Your task to perform on an android device: Check the weather Image 0: 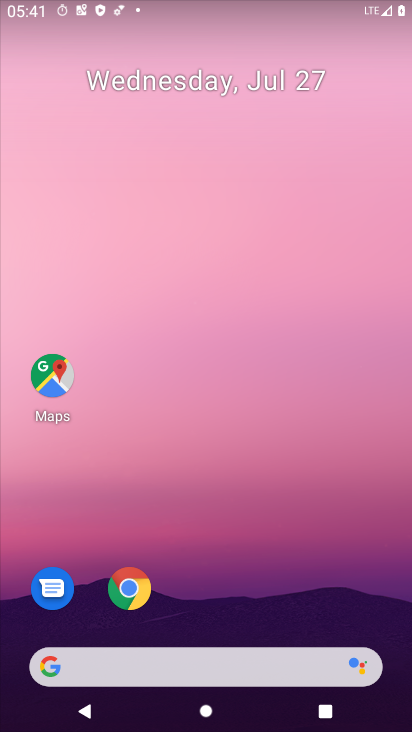
Step 0: drag from (284, 657) to (306, 4)
Your task to perform on an android device: Check the weather Image 1: 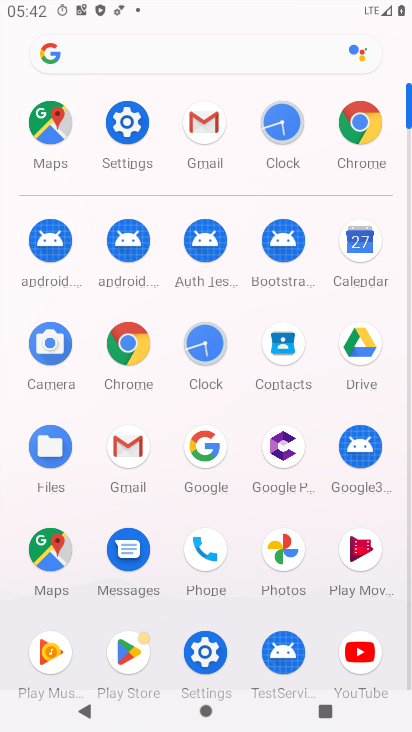
Step 1: click (140, 335)
Your task to perform on an android device: Check the weather Image 2: 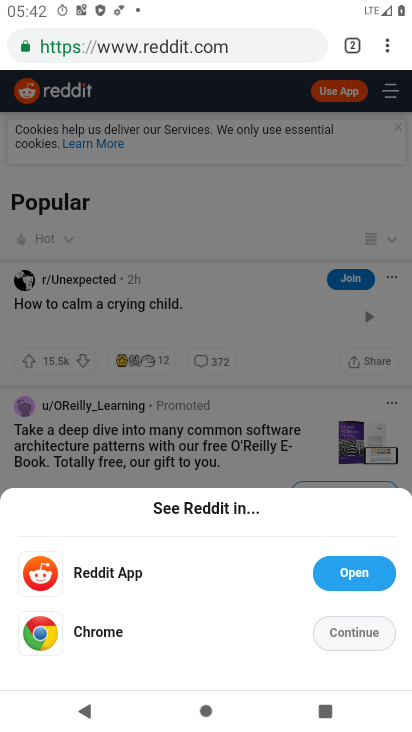
Step 2: click (251, 53)
Your task to perform on an android device: Check the weather Image 3: 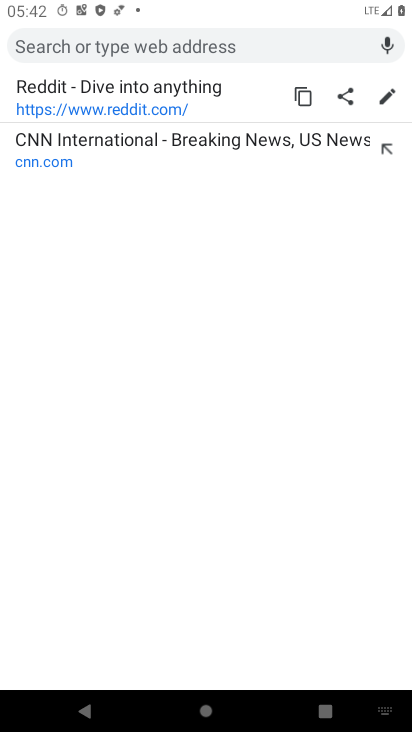
Step 3: type "check the weather"
Your task to perform on an android device: Check the weather Image 4: 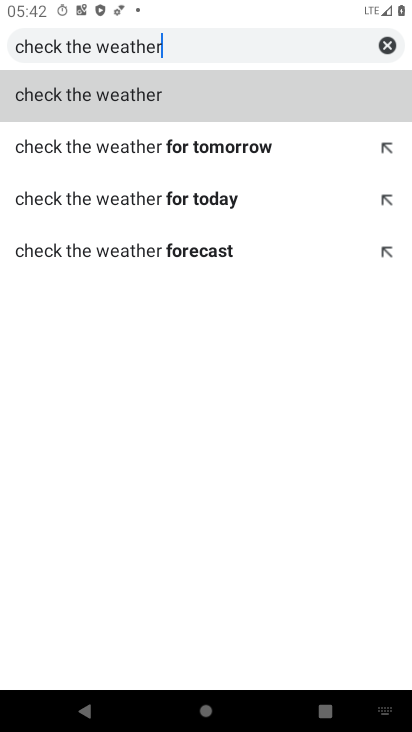
Step 4: click (170, 99)
Your task to perform on an android device: Check the weather Image 5: 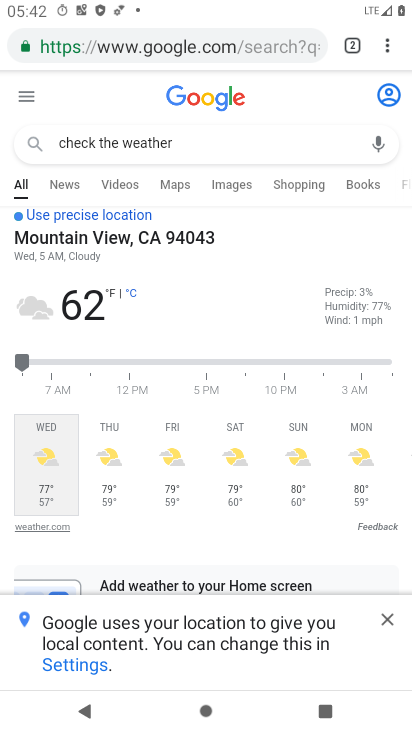
Step 5: task complete